Your task to perform on an android device: Search for Mexican restaurants on Maps Image 0: 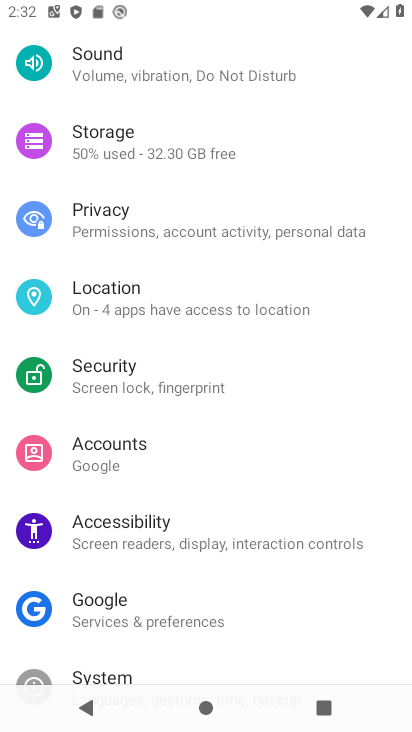
Step 0: press home button
Your task to perform on an android device: Search for Mexican restaurants on Maps Image 1: 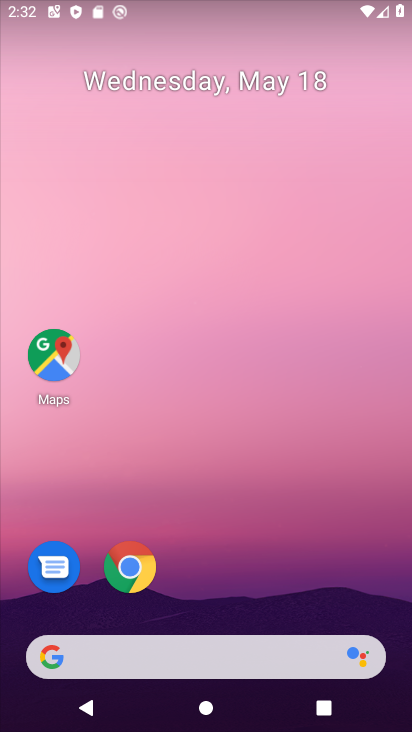
Step 1: click (65, 365)
Your task to perform on an android device: Search for Mexican restaurants on Maps Image 2: 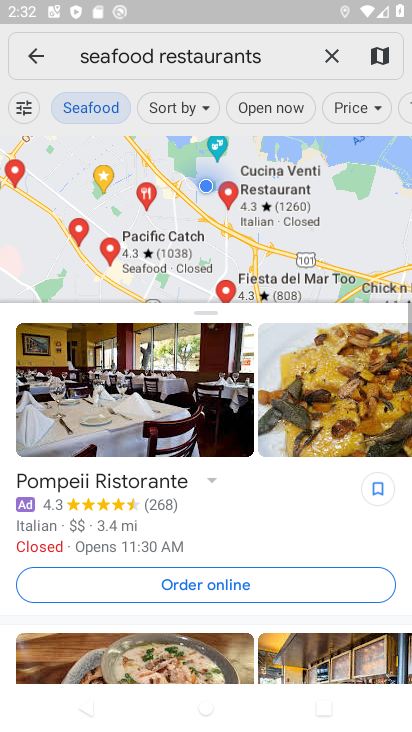
Step 2: click (285, 39)
Your task to perform on an android device: Search for Mexican restaurants on Maps Image 3: 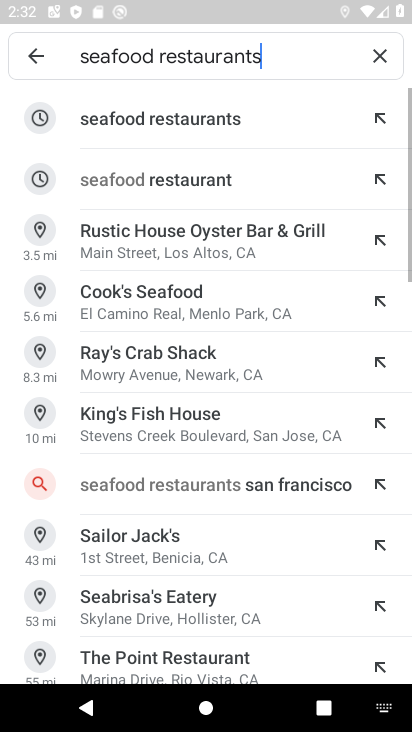
Step 3: click (374, 57)
Your task to perform on an android device: Search for Mexican restaurants on Maps Image 4: 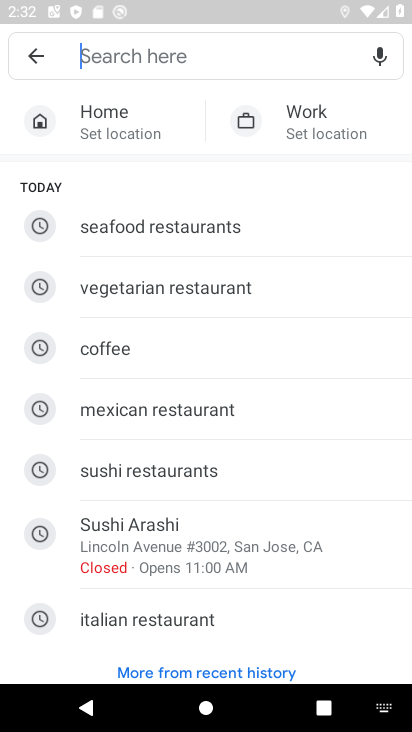
Step 4: type "Mexican restaurants"
Your task to perform on an android device: Search for Mexican restaurants on Maps Image 5: 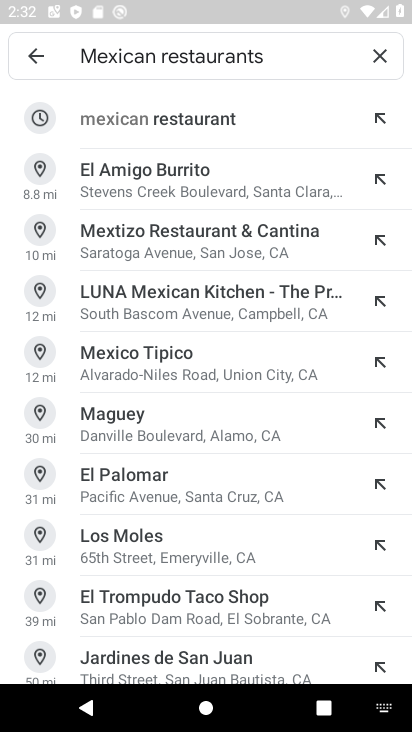
Step 5: press enter
Your task to perform on an android device: Search for Mexican restaurants on Maps Image 6: 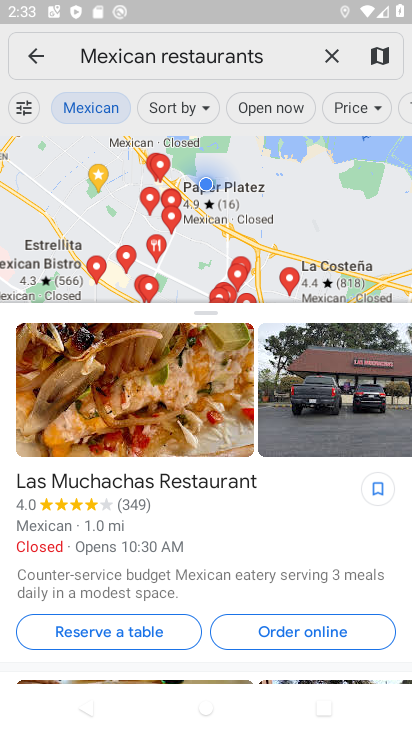
Step 6: task complete